Your task to perform on an android device: Turn off the flashlight Image 0: 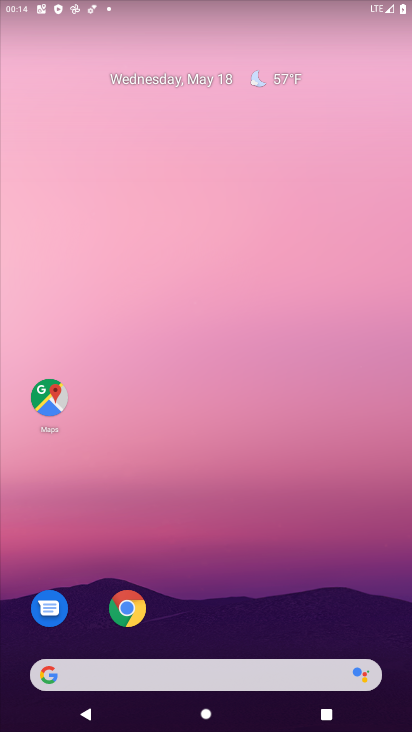
Step 0: drag from (269, 505) to (196, 36)
Your task to perform on an android device: Turn off the flashlight Image 1: 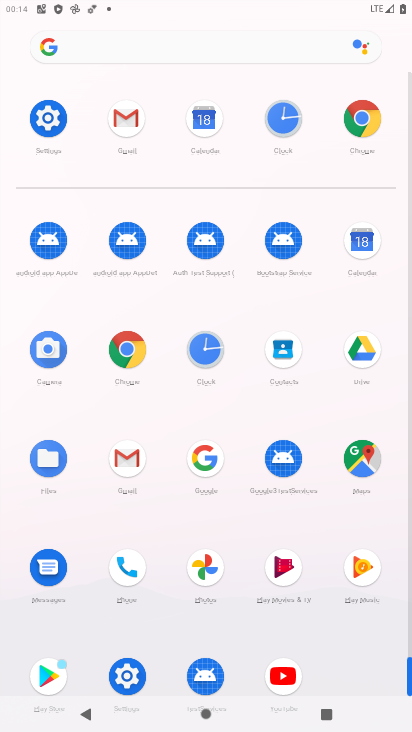
Step 1: click (40, 115)
Your task to perform on an android device: Turn off the flashlight Image 2: 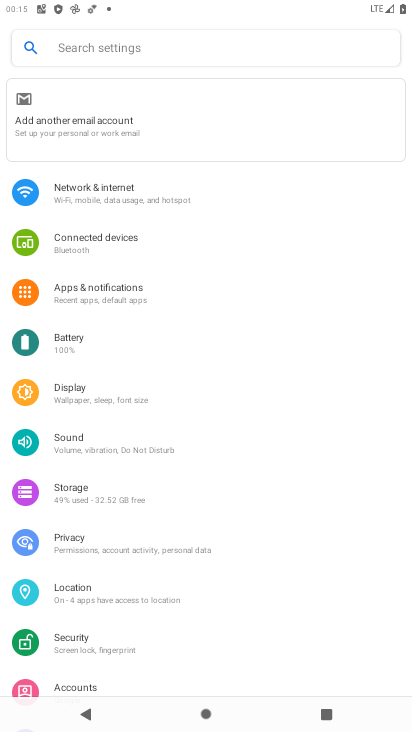
Step 2: click (71, 385)
Your task to perform on an android device: Turn off the flashlight Image 3: 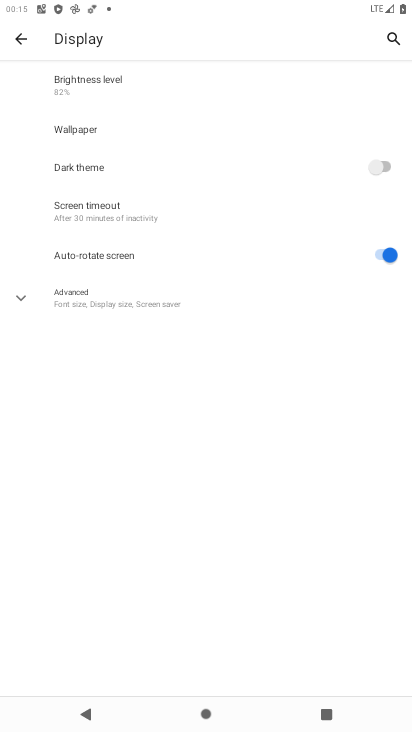
Step 3: task complete